Your task to perform on an android device: change alarm snooze length Image 0: 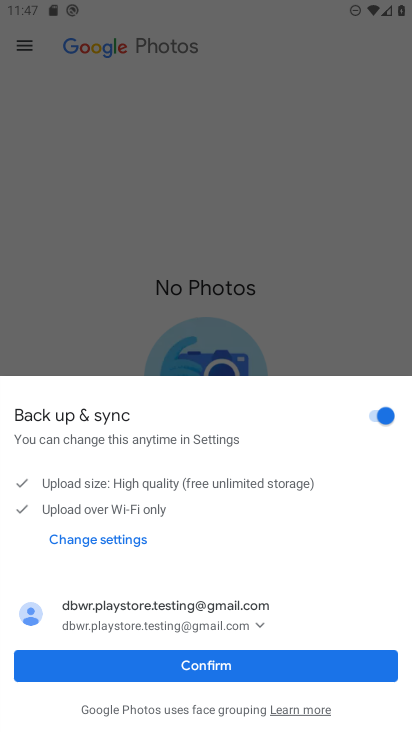
Step 0: press home button
Your task to perform on an android device: change alarm snooze length Image 1: 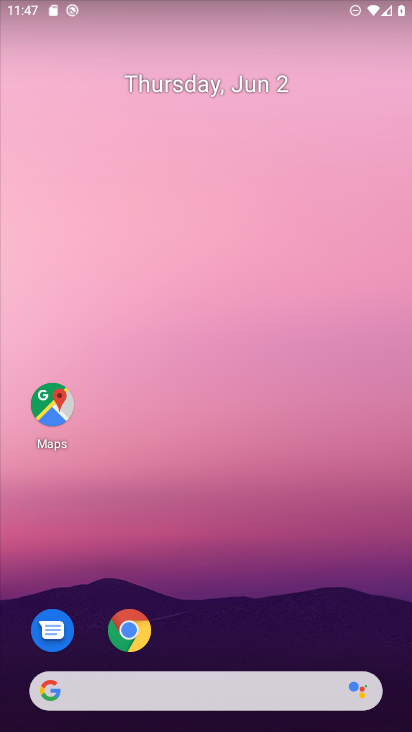
Step 1: drag from (242, 626) to (251, 184)
Your task to perform on an android device: change alarm snooze length Image 2: 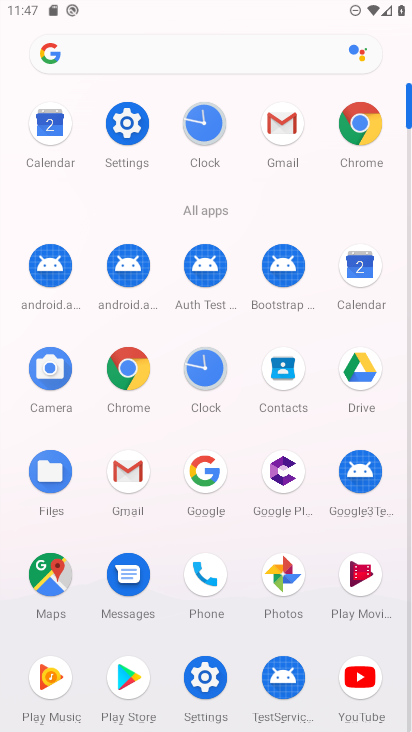
Step 2: click (201, 127)
Your task to perform on an android device: change alarm snooze length Image 3: 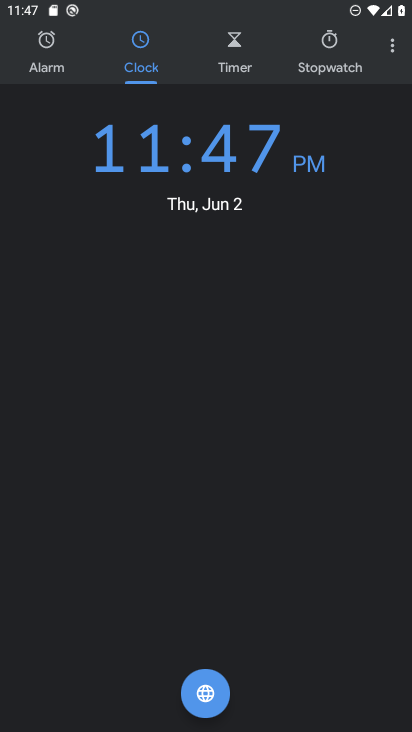
Step 3: click (403, 64)
Your task to perform on an android device: change alarm snooze length Image 4: 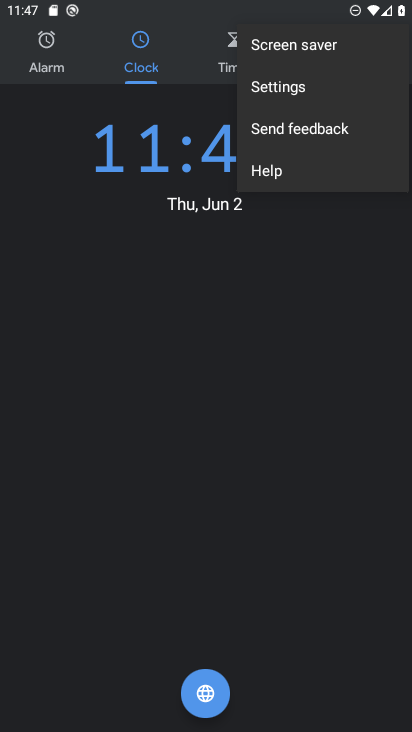
Step 4: click (307, 95)
Your task to perform on an android device: change alarm snooze length Image 5: 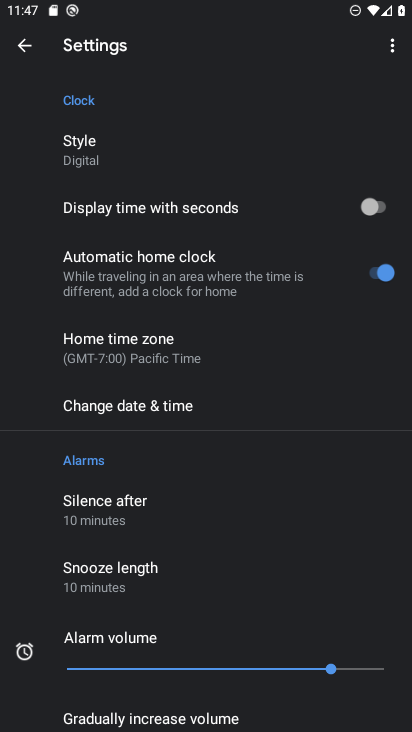
Step 5: click (232, 574)
Your task to perform on an android device: change alarm snooze length Image 6: 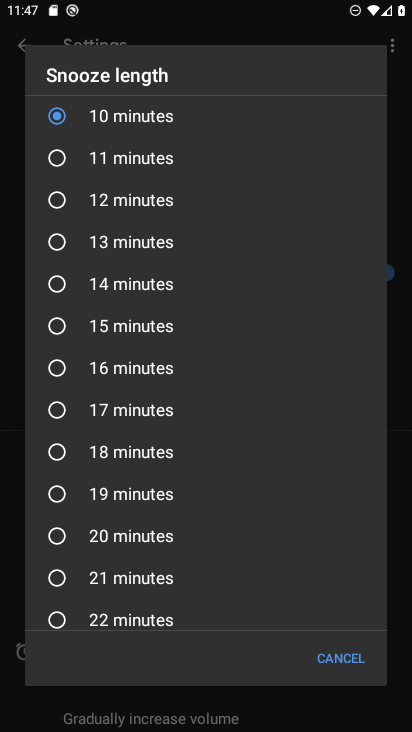
Step 6: click (193, 578)
Your task to perform on an android device: change alarm snooze length Image 7: 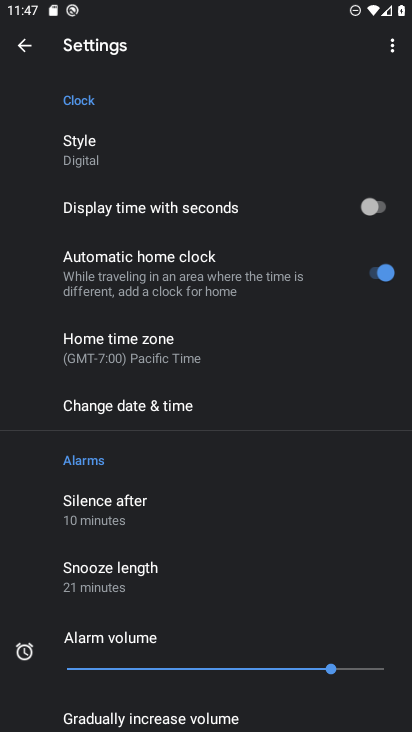
Step 7: task complete